Your task to perform on an android device: turn on the 24-hour format for clock Image 0: 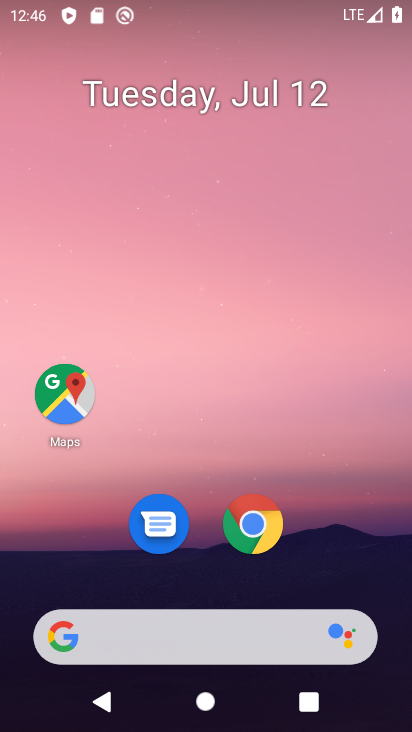
Step 0: drag from (252, 465) to (288, 0)
Your task to perform on an android device: turn on the 24-hour format for clock Image 1: 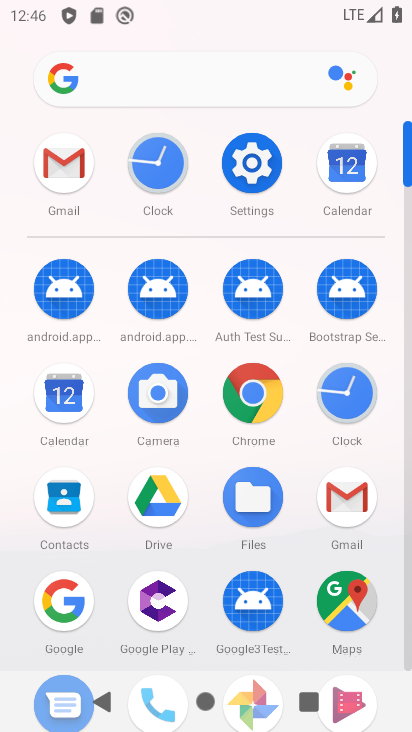
Step 1: click (166, 171)
Your task to perform on an android device: turn on the 24-hour format for clock Image 2: 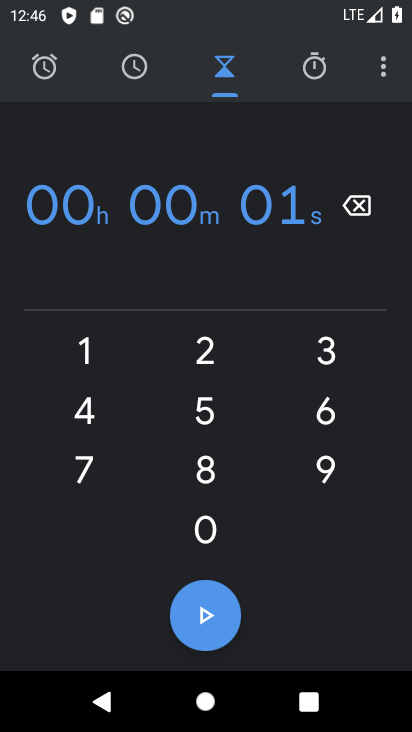
Step 2: click (382, 76)
Your task to perform on an android device: turn on the 24-hour format for clock Image 3: 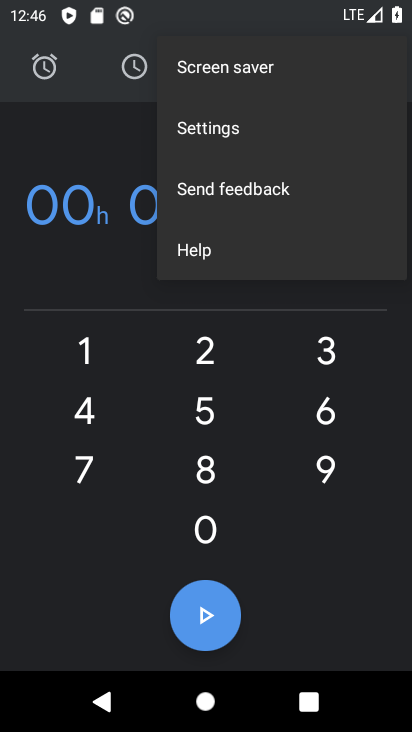
Step 3: click (265, 127)
Your task to perform on an android device: turn on the 24-hour format for clock Image 4: 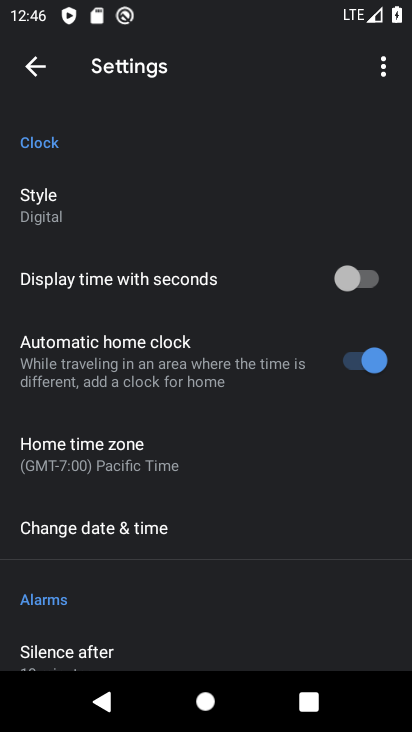
Step 4: click (241, 535)
Your task to perform on an android device: turn on the 24-hour format for clock Image 5: 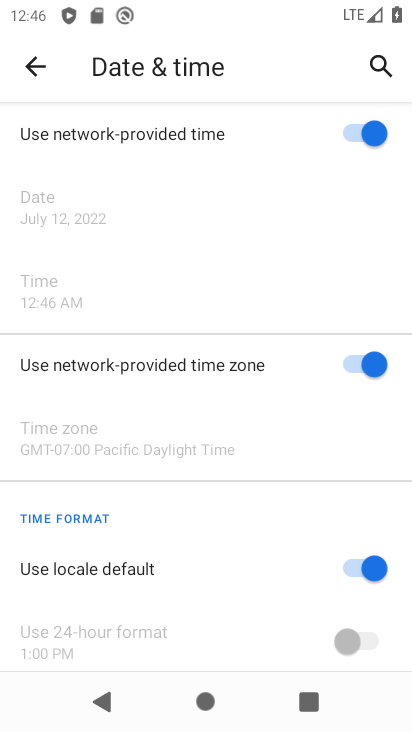
Step 5: click (347, 564)
Your task to perform on an android device: turn on the 24-hour format for clock Image 6: 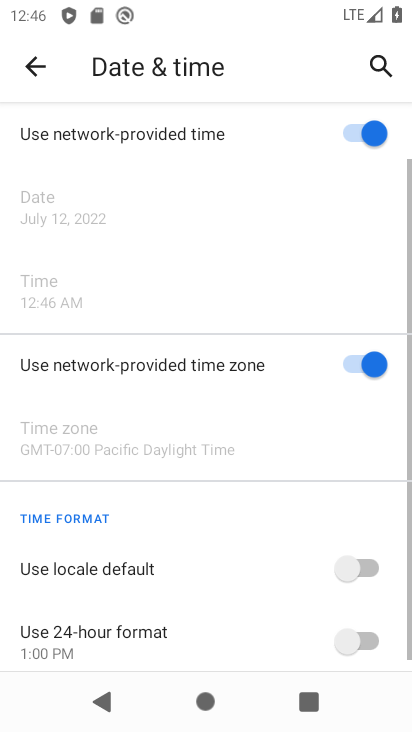
Step 6: click (361, 640)
Your task to perform on an android device: turn on the 24-hour format for clock Image 7: 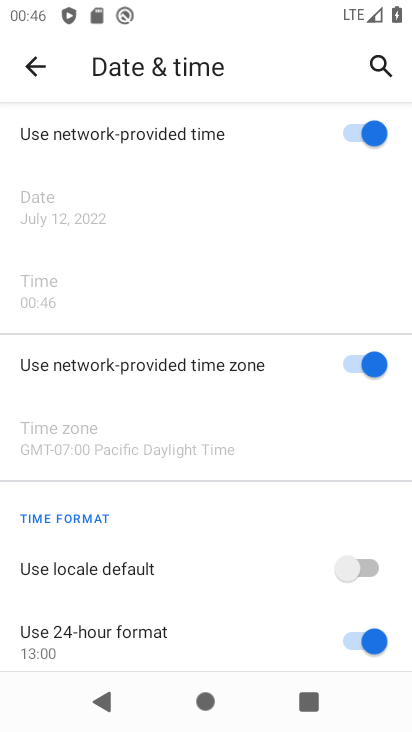
Step 7: task complete